Your task to perform on an android device: Go to Amazon Image 0: 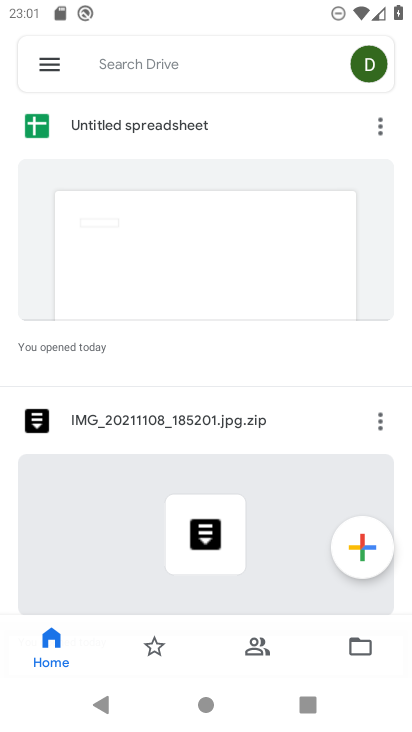
Step 0: press home button
Your task to perform on an android device: Go to Amazon Image 1: 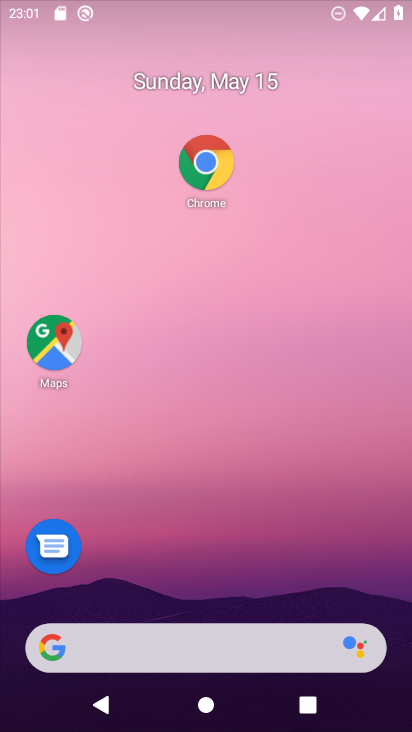
Step 1: drag from (272, 587) to (306, 264)
Your task to perform on an android device: Go to Amazon Image 2: 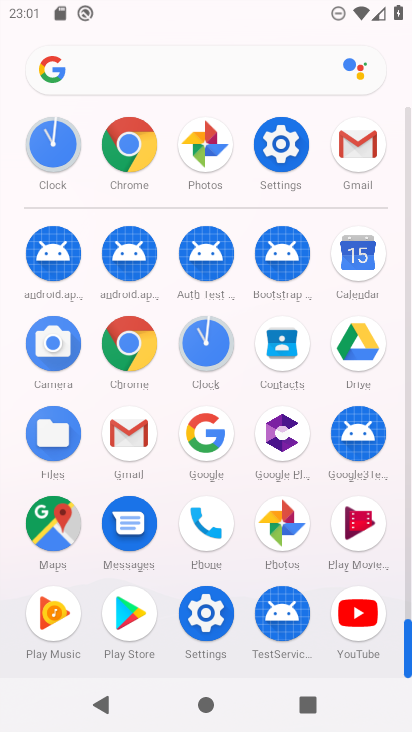
Step 2: click (128, 148)
Your task to perform on an android device: Go to Amazon Image 3: 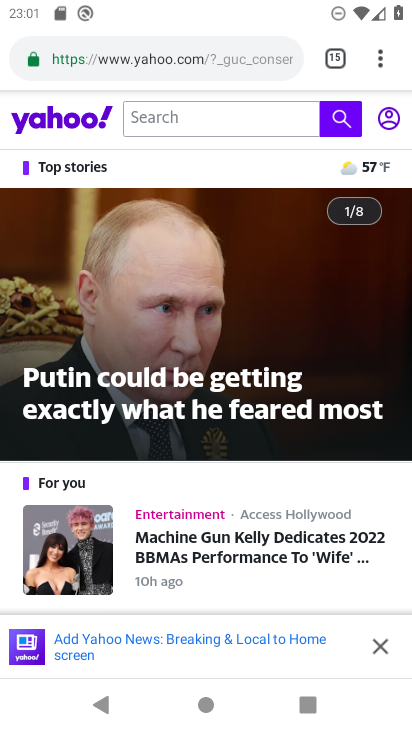
Step 3: click (384, 53)
Your task to perform on an android device: Go to Amazon Image 4: 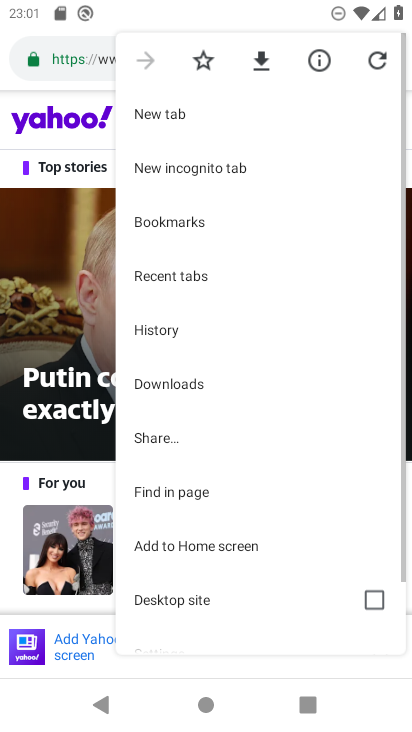
Step 4: click (184, 127)
Your task to perform on an android device: Go to Amazon Image 5: 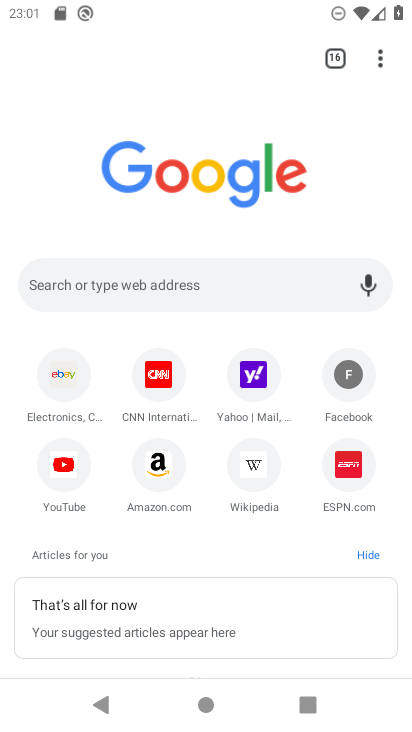
Step 5: click (168, 451)
Your task to perform on an android device: Go to Amazon Image 6: 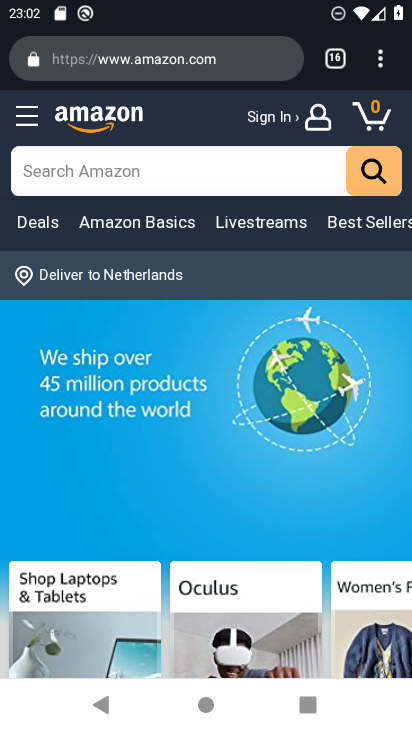
Step 6: task complete